Your task to perform on an android device: Go to Wikipedia Image 0: 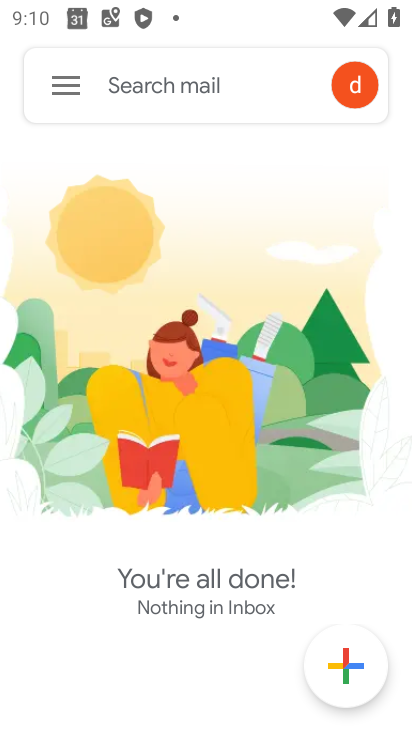
Step 0: press back button
Your task to perform on an android device: Go to Wikipedia Image 1: 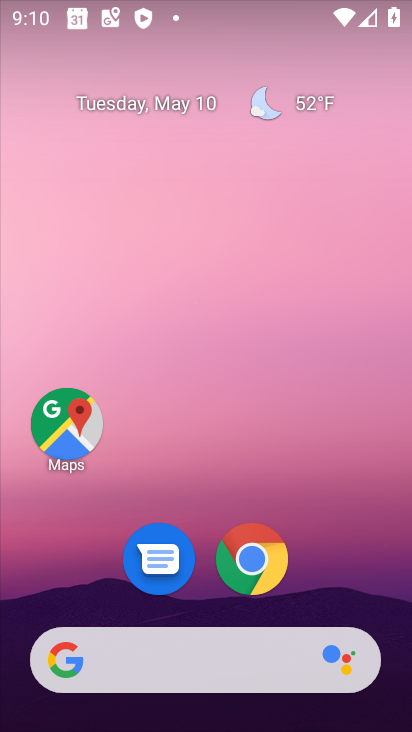
Step 1: drag from (325, 540) to (268, 1)
Your task to perform on an android device: Go to Wikipedia Image 2: 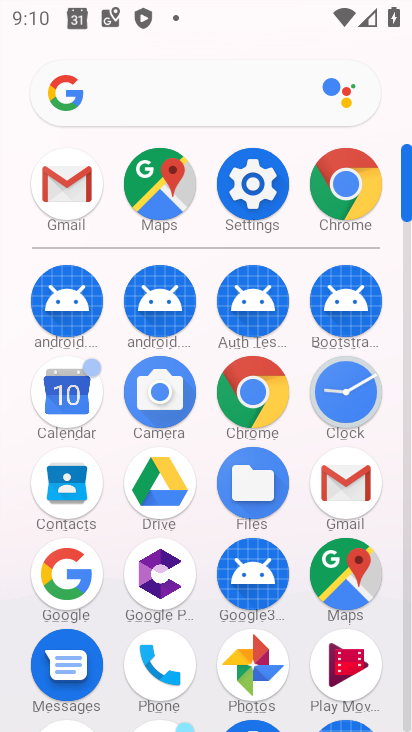
Step 2: click (251, 384)
Your task to perform on an android device: Go to Wikipedia Image 3: 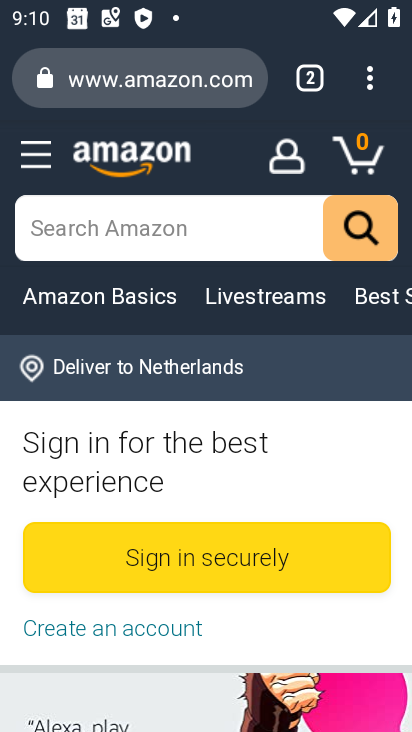
Step 3: click (169, 63)
Your task to perform on an android device: Go to Wikipedia Image 4: 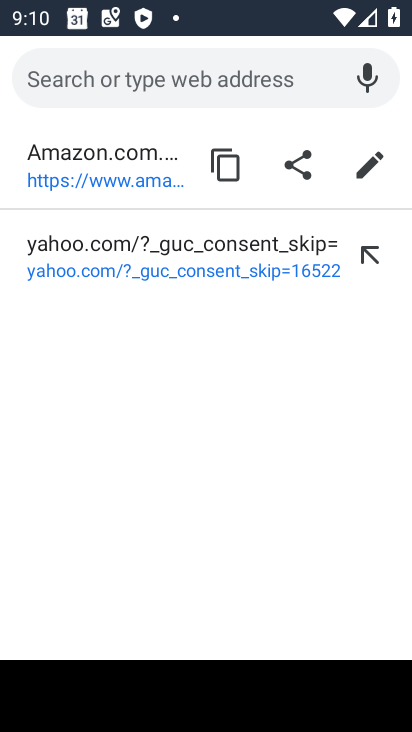
Step 4: type "Wikipedia"
Your task to perform on an android device: Go to Wikipedia Image 5: 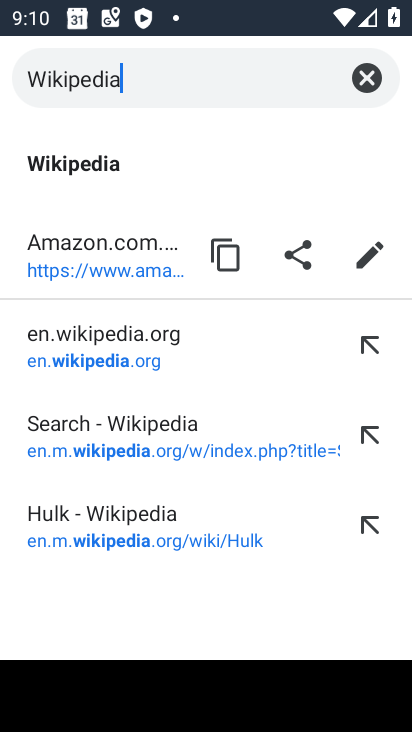
Step 5: type ""
Your task to perform on an android device: Go to Wikipedia Image 6: 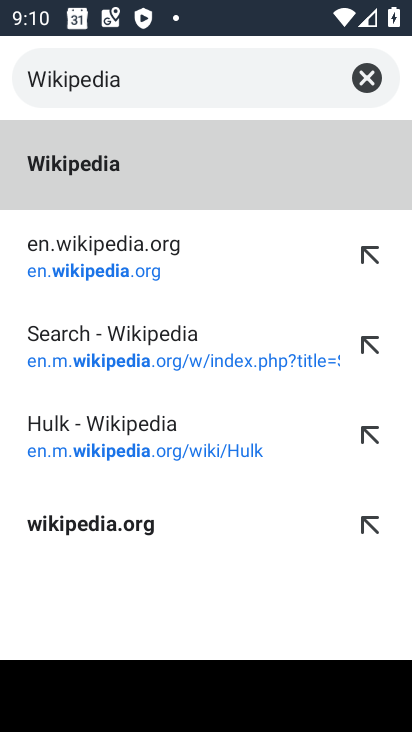
Step 6: click (90, 250)
Your task to perform on an android device: Go to Wikipedia Image 7: 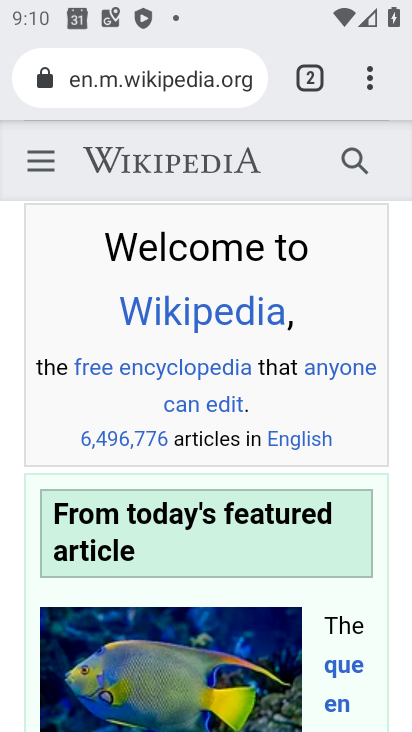
Step 7: task complete